Your task to perform on an android device: What is the recent news? Image 0: 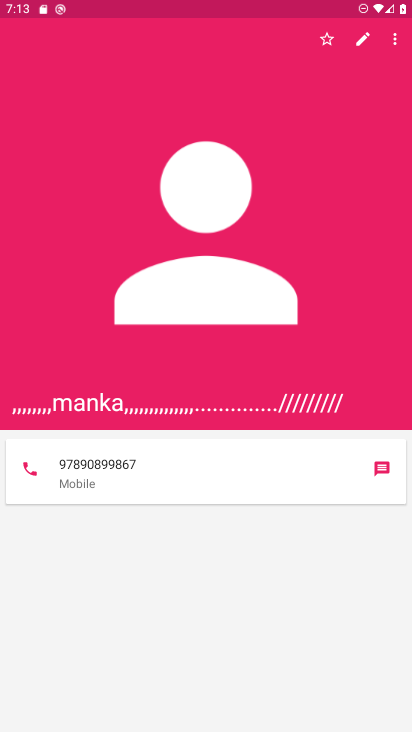
Step 0: press home button
Your task to perform on an android device: What is the recent news? Image 1: 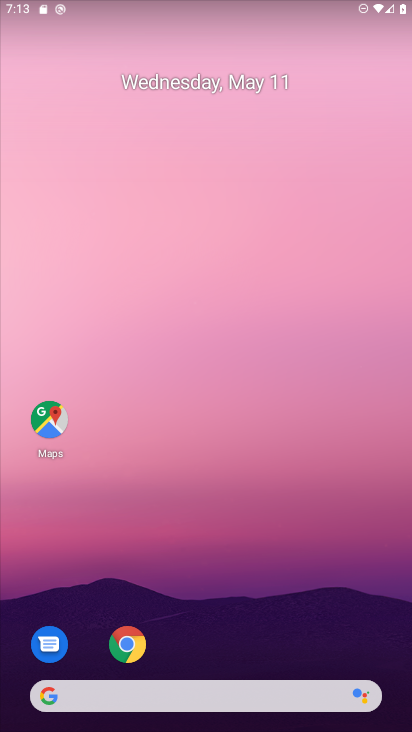
Step 1: task complete